Your task to perform on an android device: Open the web browser Image 0: 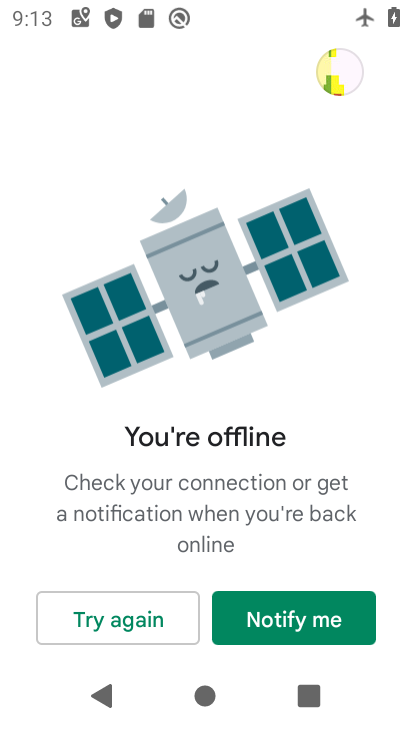
Step 0: press home button
Your task to perform on an android device: Open the web browser Image 1: 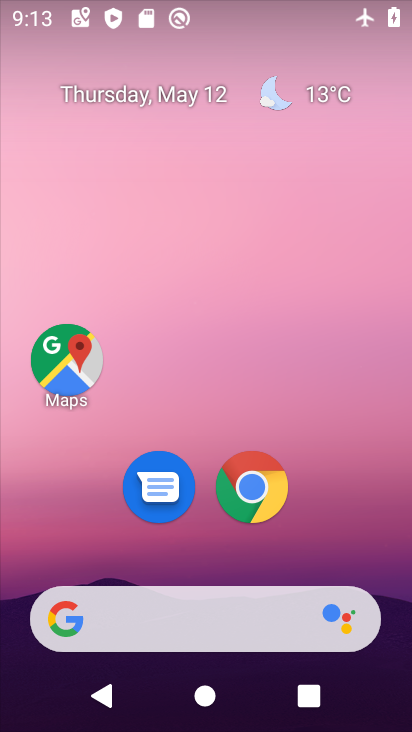
Step 1: click (256, 625)
Your task to perform on an android device: Open the web browser Image 2: 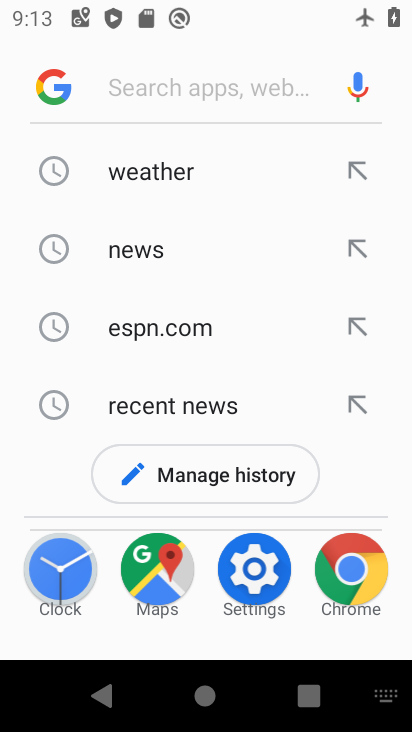
Step 2: task complete